Your task to perform on an android device: turn off sleep mode Image 0: 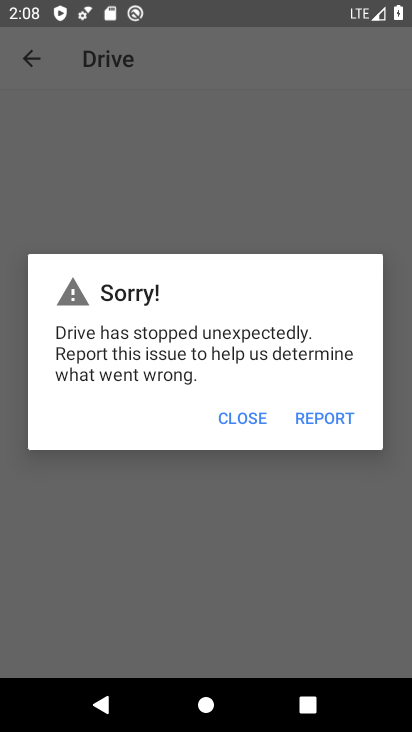
Step 0: press home button
Your task to perform on an android device: turn off sleep mode Image 1: 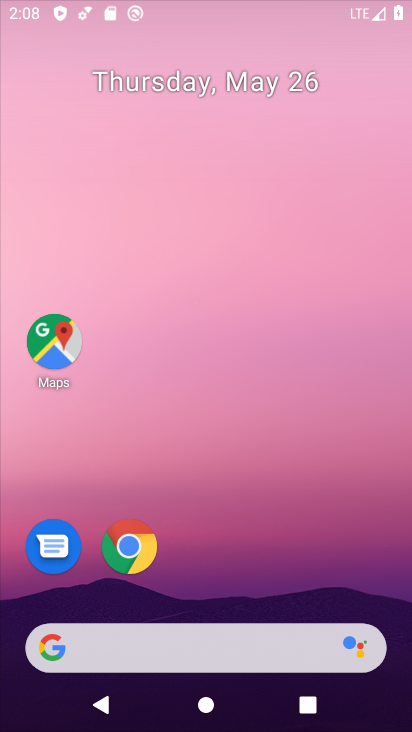
Step 1: drag from (298, 439) to (276, 25)
Your task to perform on an android device: turn off sleep mode Image 2: 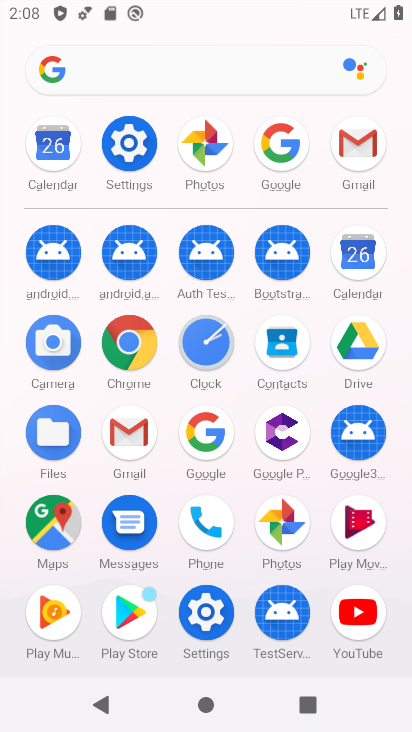
Step 2: click (141, 144)
Your task to perform on an android device: turn off sleep mode Image 3: 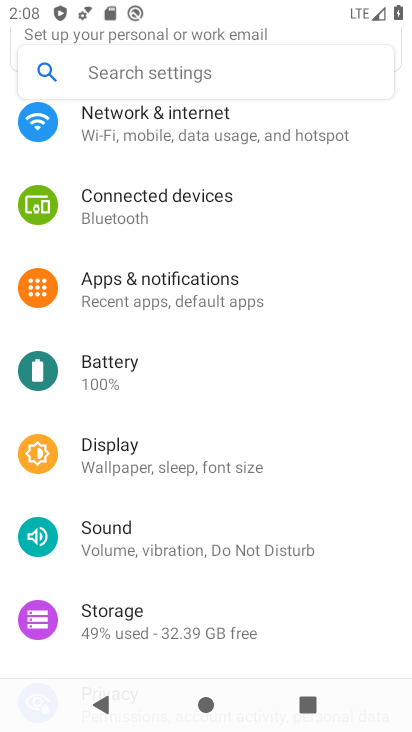
Step 3: click (184, 465)
Your task to perform on an android device: turn off sleep mode Image 4: 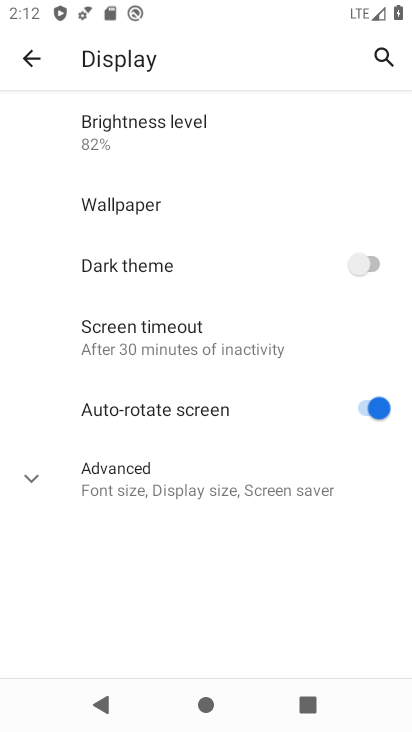
Step 4: task complete